Your task to perform on an android device: show emergency info Image 0: 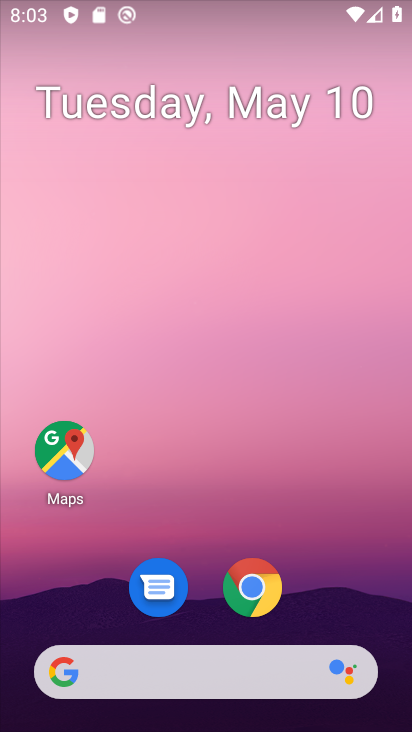
Step 0: drag from (375, 551) to (402, 162)
Your task to perform on an android device: show emergency info Image 1: 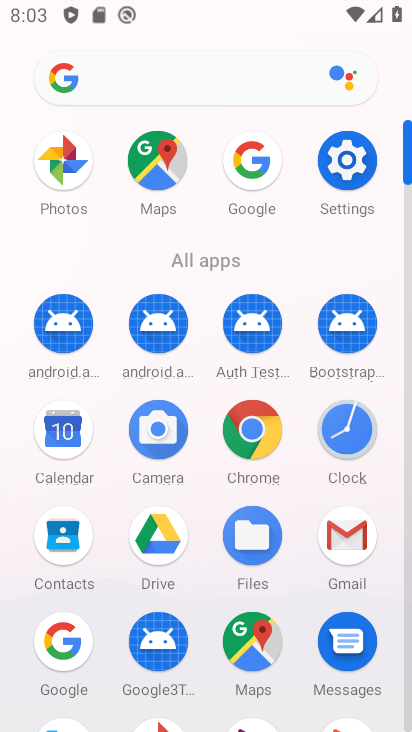
Step 1: click (347, 157)
Your task to perform on an android device: show emergency info Image 2: 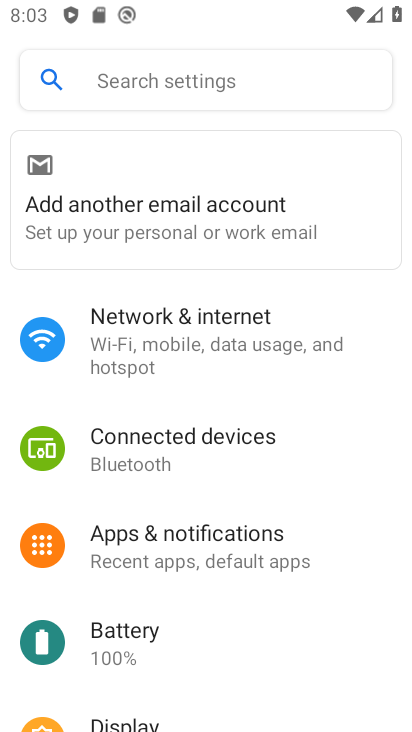
Step 2: drag from (183, 604) to (139, 126)
Your task to perform on an android device: show emergency info Image 3: 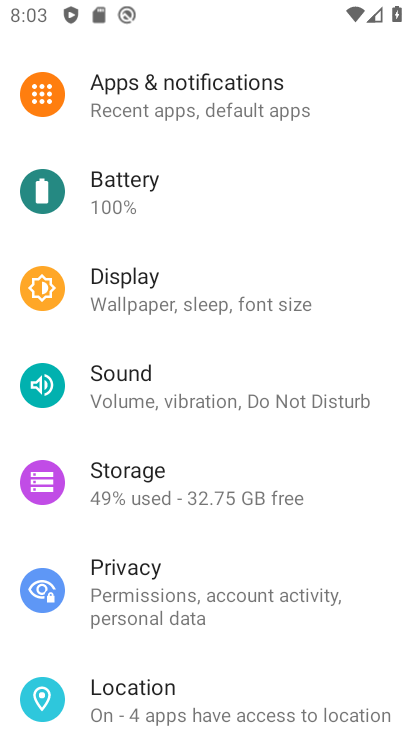
Step 3: drag from (131, 668) to (91, 92)
Your task to perform on an android device: show emergency info Image 4: 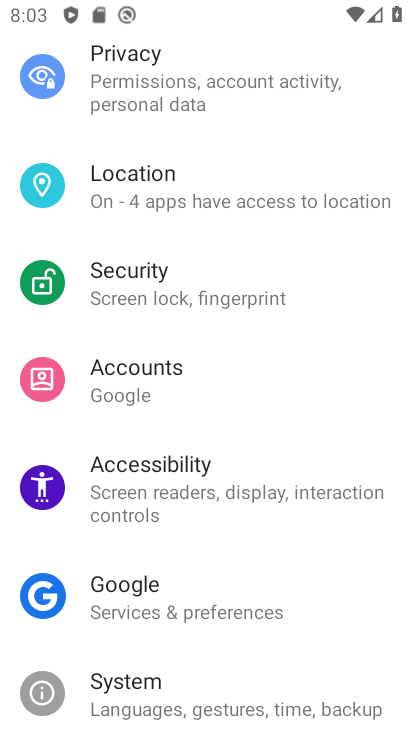
Step 4: drag from (140, 595) to (197, 126)
Your task to perform on an android device: show emergency info Image 5: 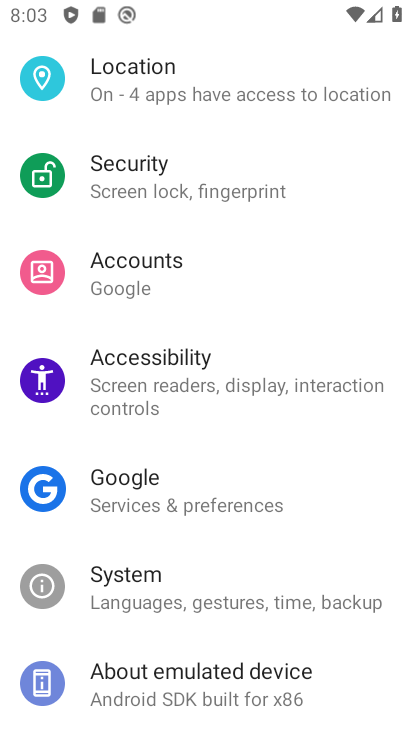
Step 5: click (166, 720)
Your task to perform on an android device: show emergency info Image 6: 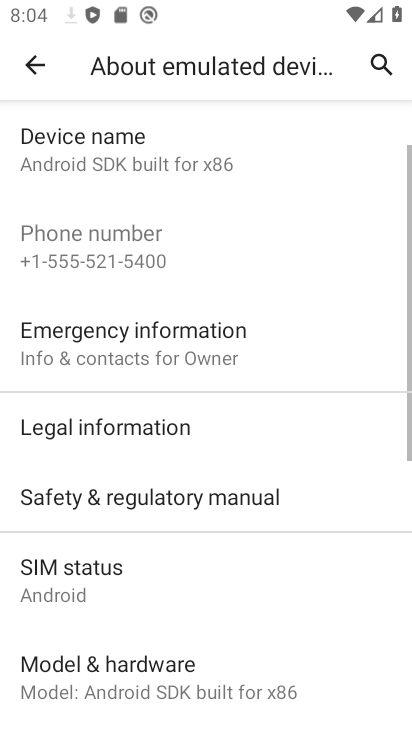
Step 6: click (100, 334)
Your task to perform on an android device: show emergency info Image 7: 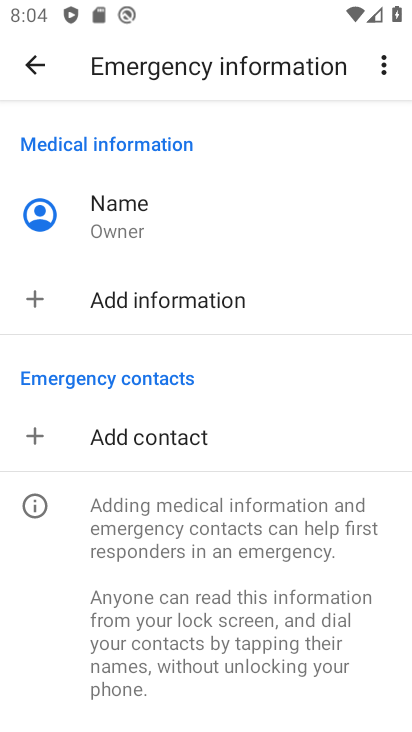
Step 7: task complete